Your task to perform on an android device: turn on location history Image 0: 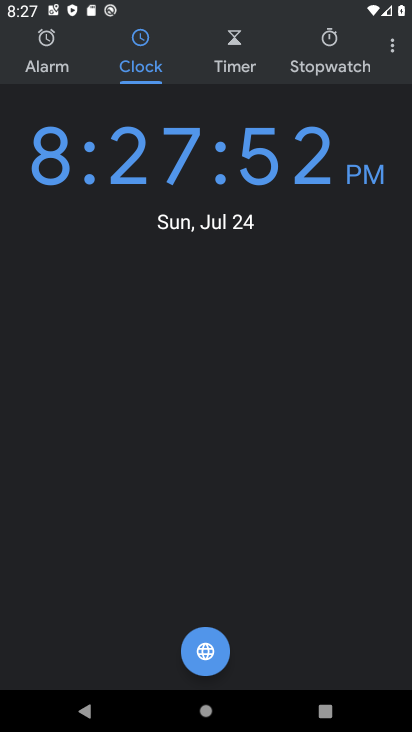
Step 0: press home button
Your task to perform on an android device: turn on location history Image 1: 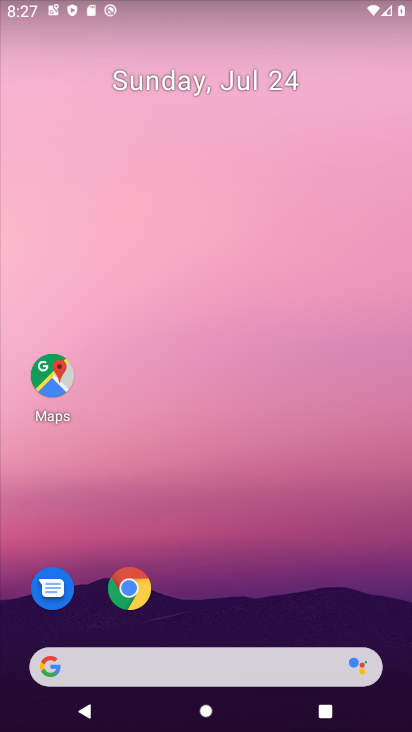
Step 1: click (55, 379)
Your task to perform on an android device: turn on location history Image 2: 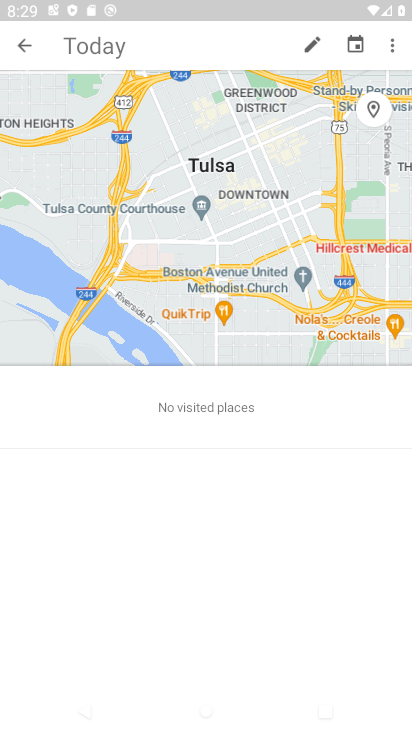
Step 2: click (384, 48)
Your task to perform on an android device: turn on location history Image 3: 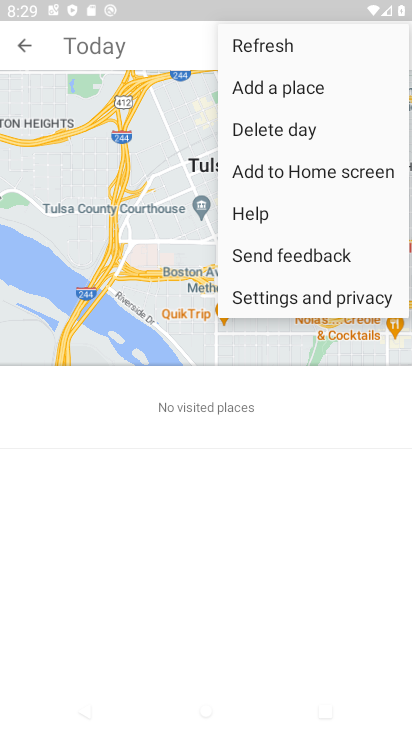
Step 3: click (320, 305)
Your task to perform on an android device: turn on location history Image 4: 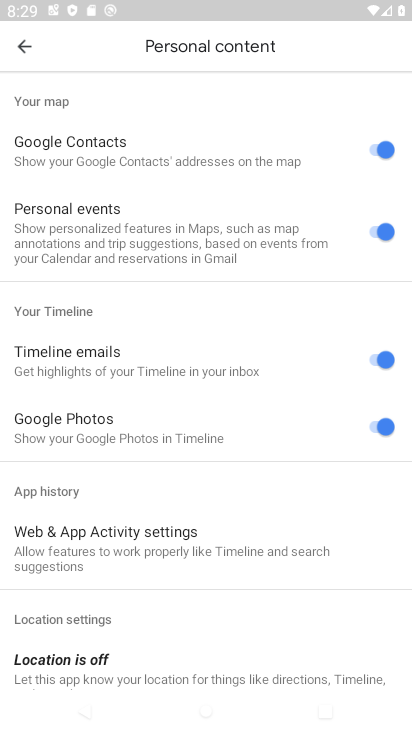
Step 4: drag from (219, 657) to (327, 59)
Your task to perform on an android device: turn on location history Image 5: 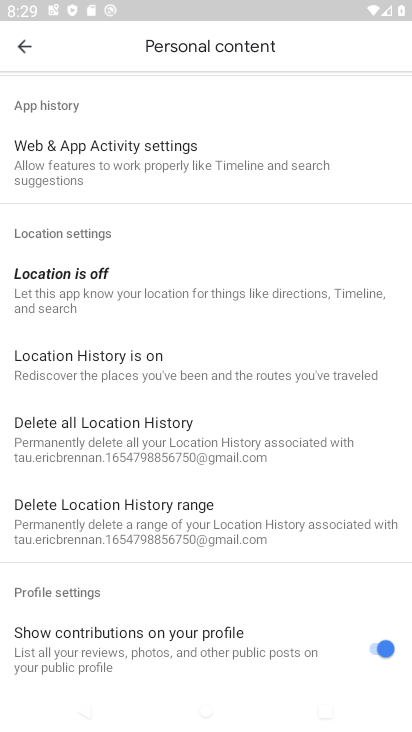
Step 5: click (177, 364)
Your task to perform on an android device: turn on location history Image 6: 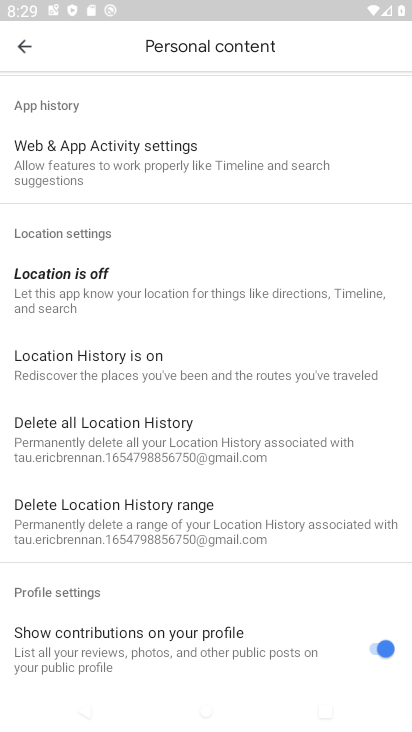
Step 6: click (177, 364)
Your task to perform on an android device: turn on location history Image 7: 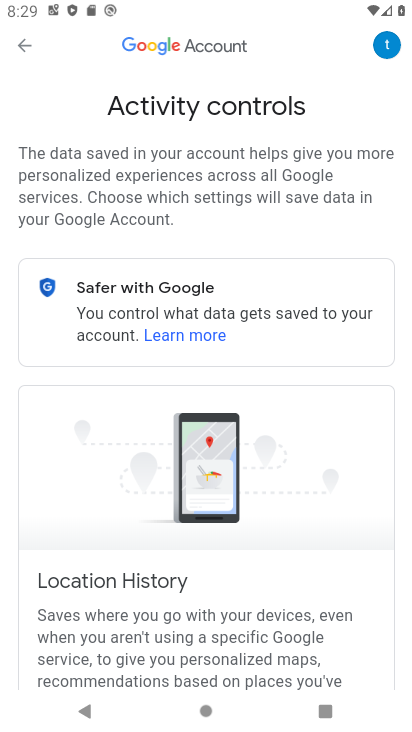
Step 7: task complete